Your task to perform on an android device: all mails in gmail Image 0: 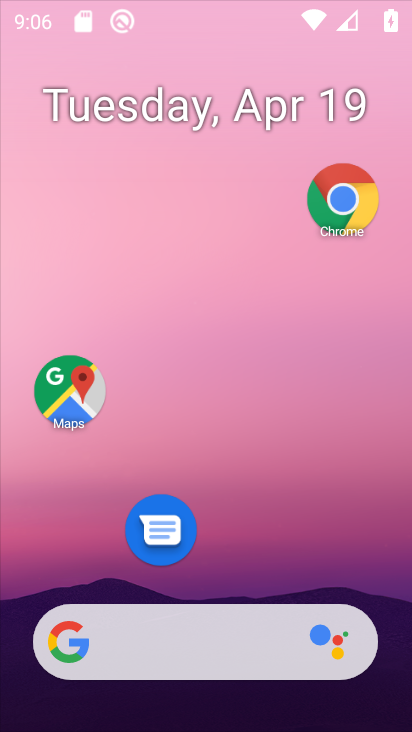
Step 0: drag from (213, 492) to (115, 1)
Your task to perform on an android device: all mails in gmail Image 1: 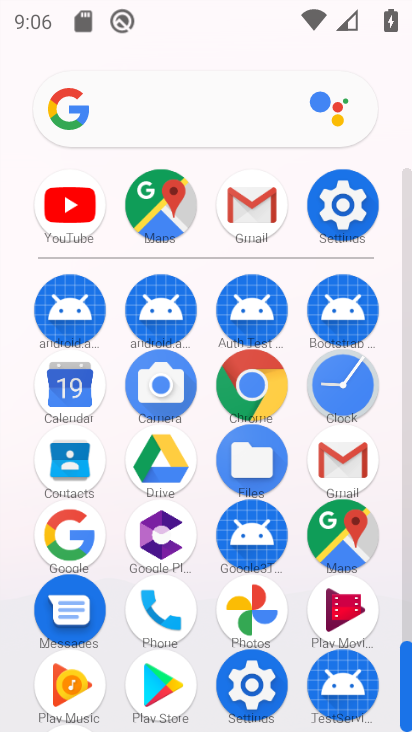
Step 1: click (337, 442)
Your task to perform on an android device: all mails in gmail Image 2: 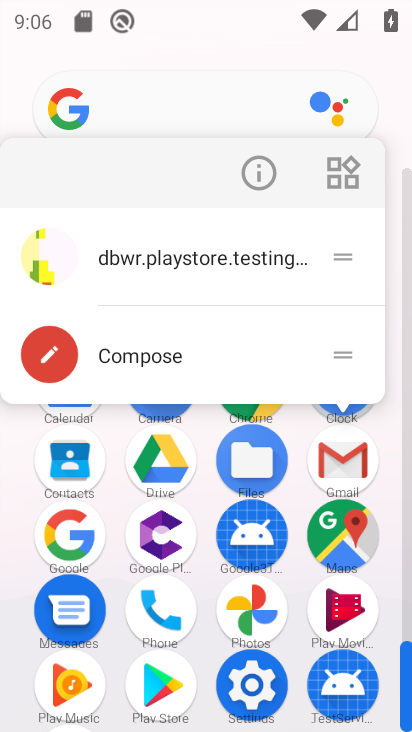
Step 2: click (261, 164)
Your task to perform on an android device: all mails in gmail Image 3: 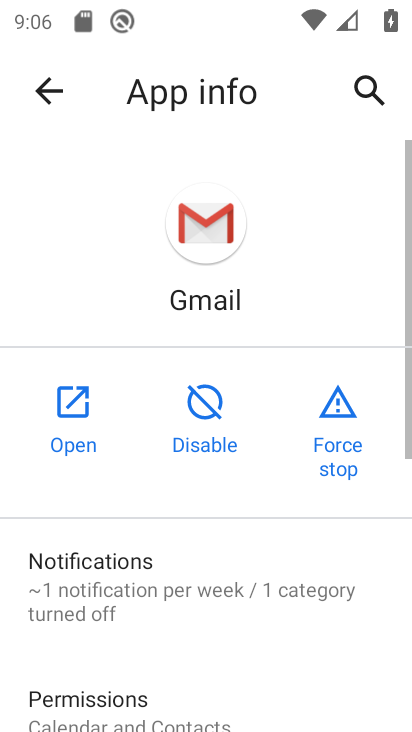
Step 3: click (52, 430)
Your task to perform on an android device: all mails in gmail Image 4: 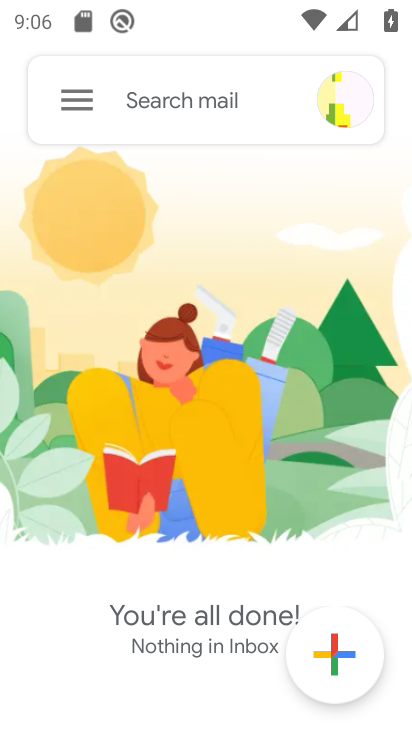
Step 4: drag from (216, 642) to (294, 291)
Your task to perform on an android device: all mails in gmail Image 5: 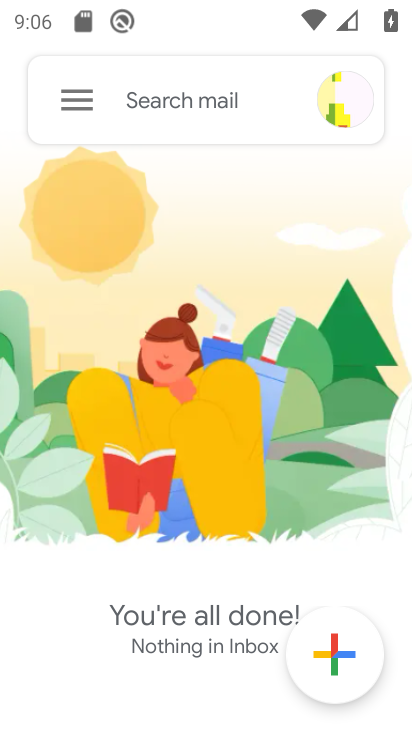
Step 5: click (57, 101)
Your task to perform on an android device: all mails in gmail Image 6: 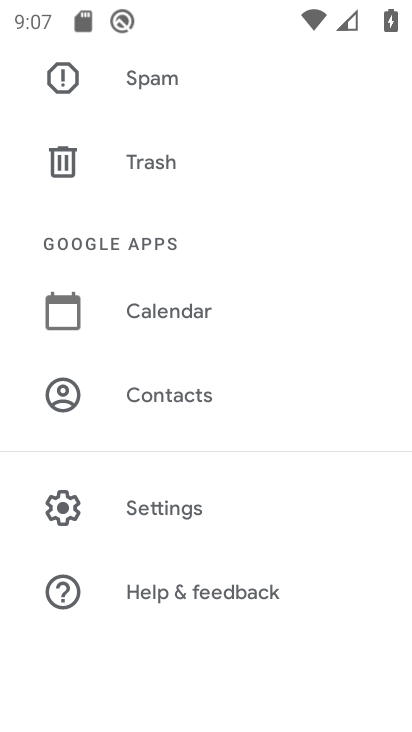
Step 6: click (223, 503)
Your task to perform on an android device: all mails in gmail Image 7: 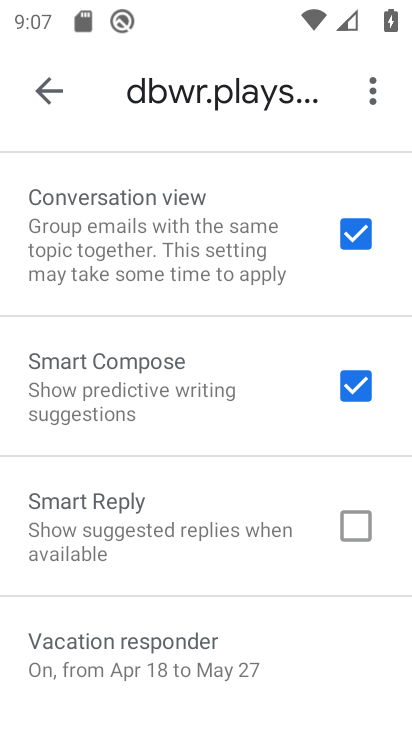
Step 7: drag from (221, 376) to (314, 714)
Your task to perform on an android device: all mails in gmail Image 8: 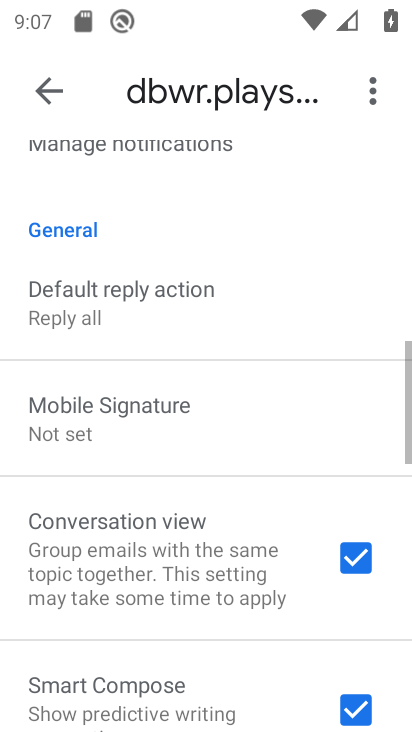
Step 8: drag from (198, 326) to (269, 730)
Your task to perform on an android device: all mails in gmail Image 9: 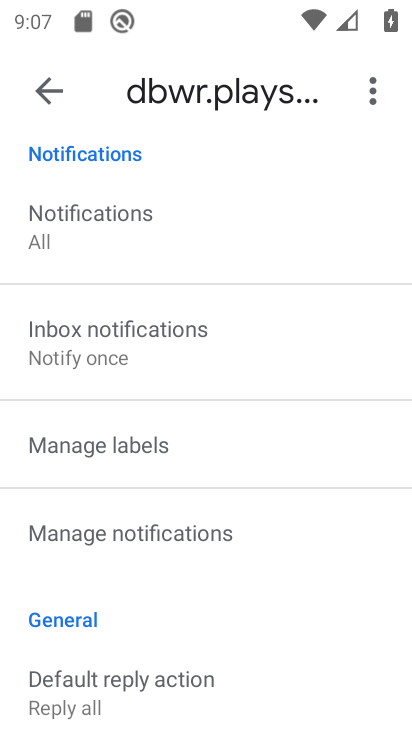
Step 9: drag from (133, 281) to (242, 670)
Your task to perform on an android device: all mails in gmail Image 10: 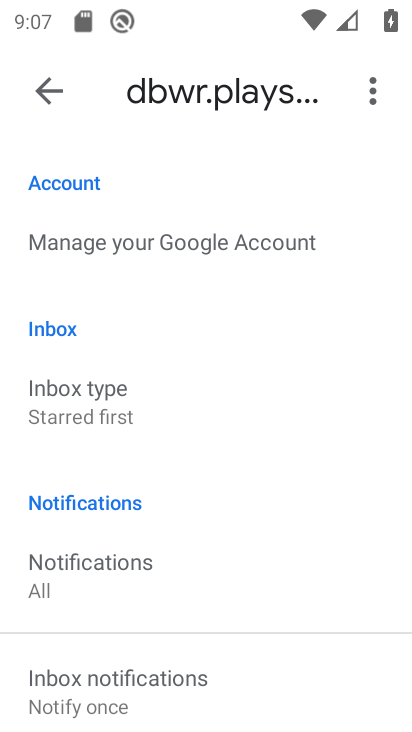
Step 10: drag from (180, 272) to (306, 529)
Your task to perform on an android device: all mails in gmail Image 11: 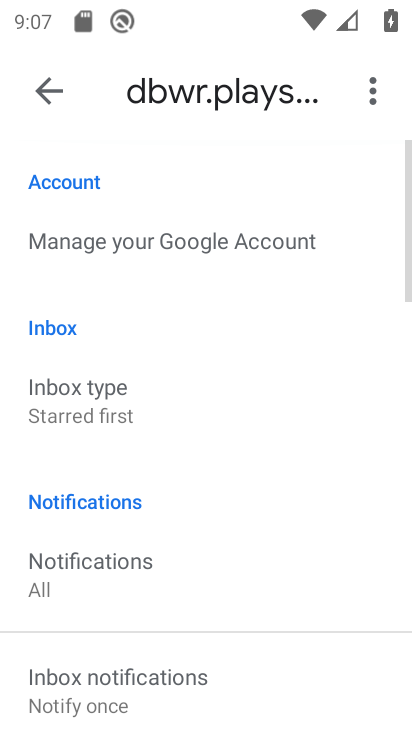
Step 11: click (45, 85)
Your task to perform on an android device: all mails in gmail Image 12: 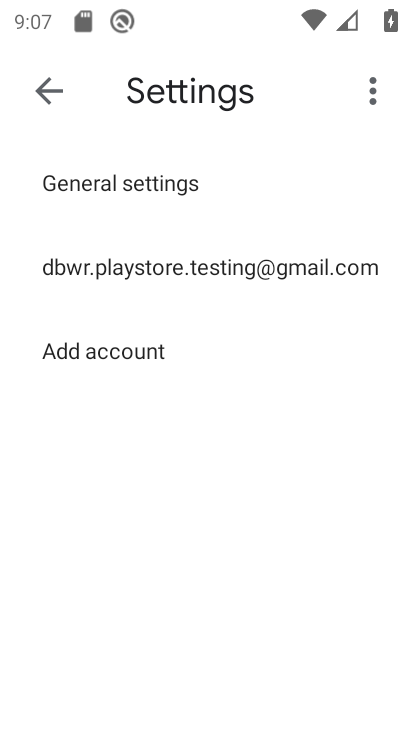
Step 12: click (53, 79)
Your task to perform on an android device: all mails in gmail Image 13: 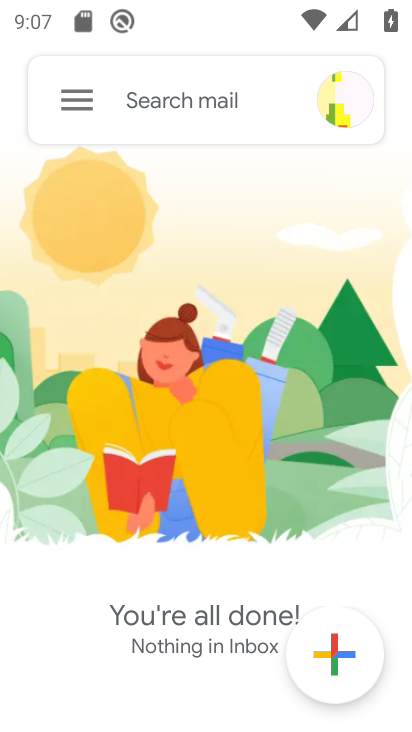
Step 13: click (75, 106)
Your task to perform on an android device: all mails in gmail Image 14: 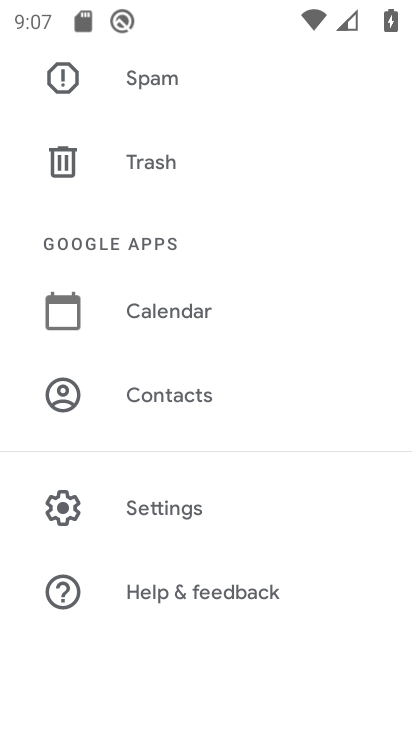
Step 14: drag from (171, 205) to (266, 690)
Your task to perform on an android device: all mails in gmail Image 15: 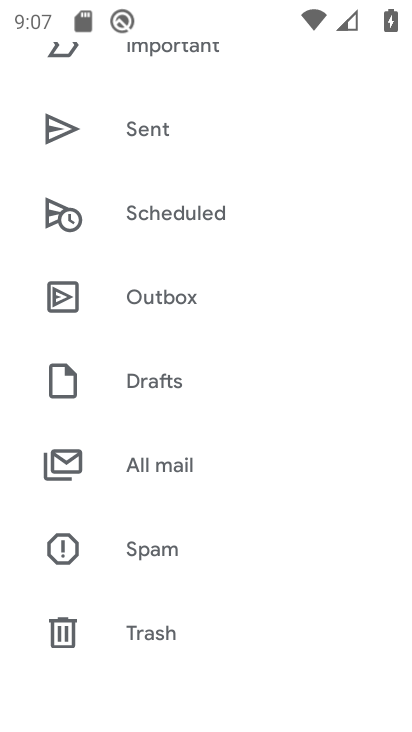
Step 15: drag from (198, 269) to (301, 606)
Your task to perform on an android device: all mails in gmail Image 16: 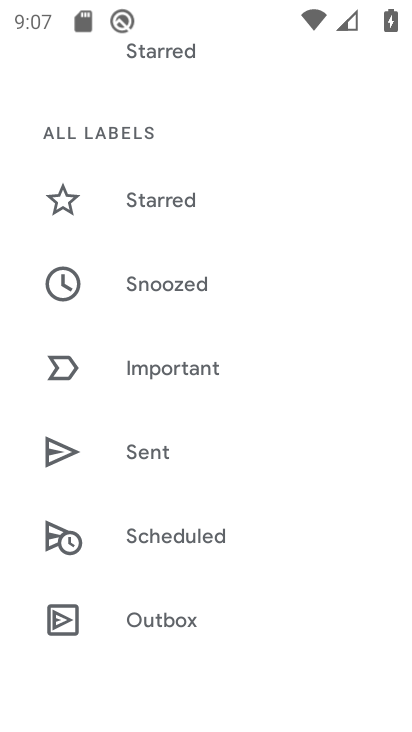
Step 16: drag from (242, 534) to (287, 107)
Your task to perform on an android device: all mails in gmail Image 17: 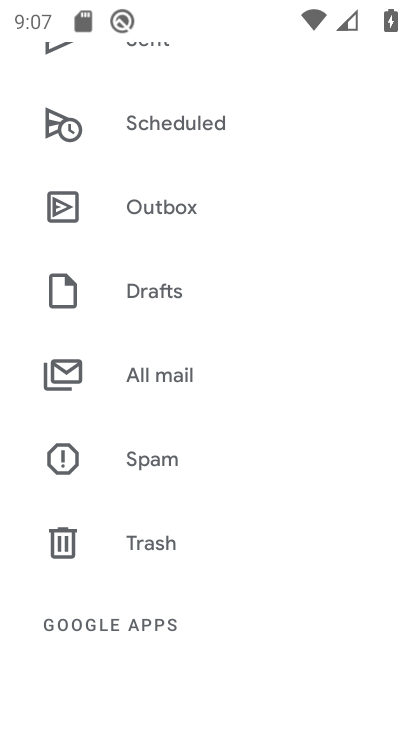
Step 17: click (165, 357)
Your task to perform on an android device: all mails in gmail Image 18: 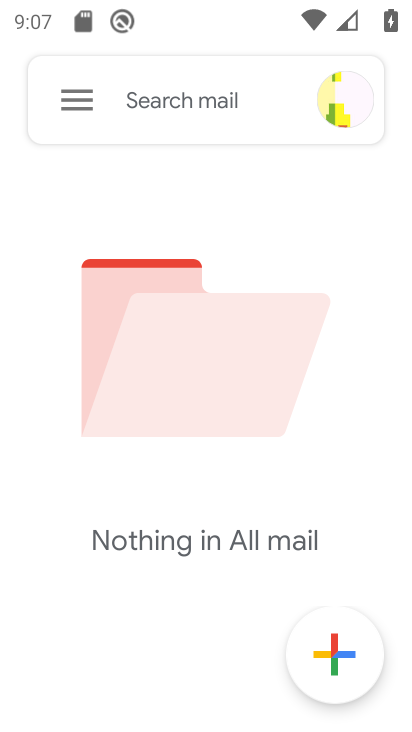
Step 18: drag from (219, 607) to (302, 130)
Your task to perform on an android device: all mails in gmail Image 19: 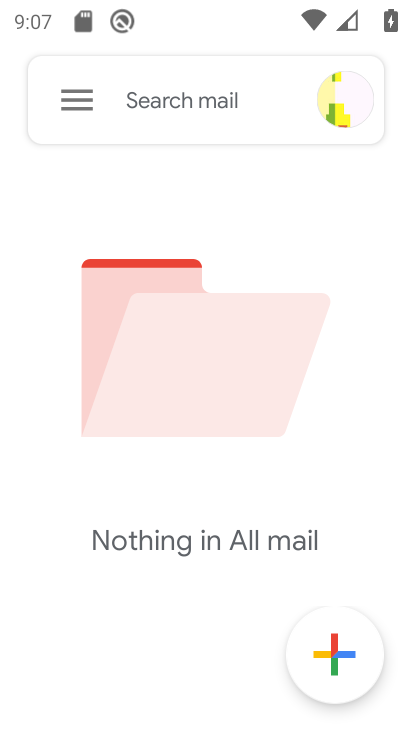
Step 19: click (65, 113)
Your task to perform on an android device: all mails in gmail Image 20: 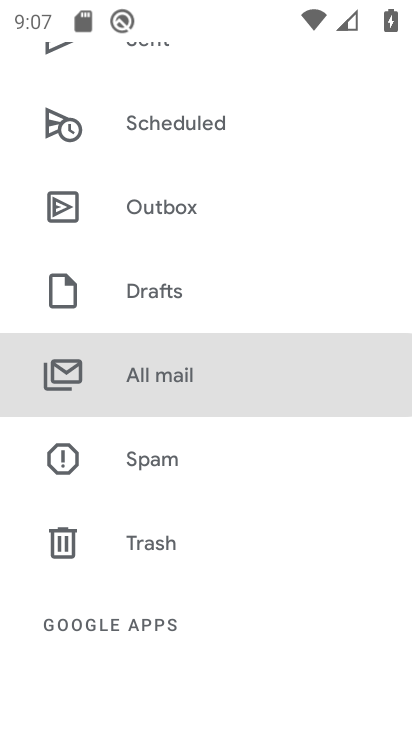
Step 20: click (154, 386)
Your task to perform on an android device: all mails in gmail Image 21: 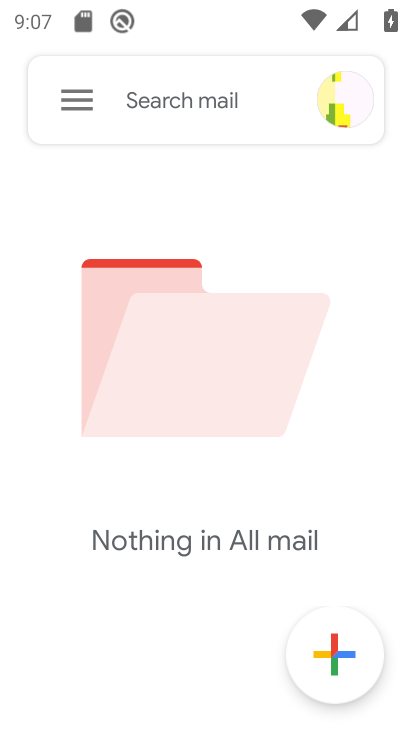
Step 21: drag from (183, 504) to (236, 306)
Your task to perform on an android device: all mails in gmail Image 22: 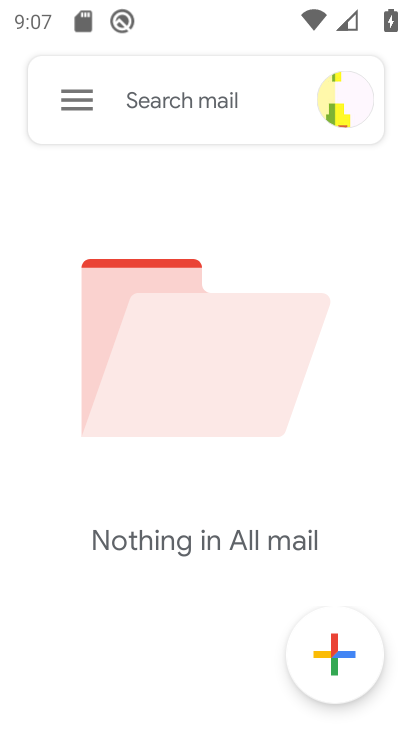
Step 22: click (88, 95)
Your task to perform on an android device: all mails in gmail Image 23: 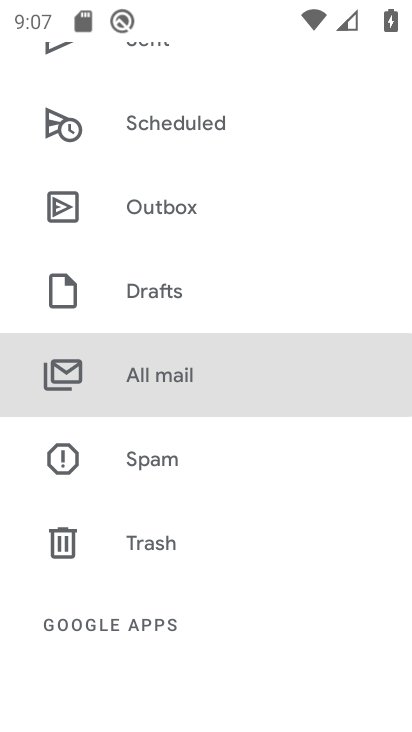
Step 23: click (203, 386)
Your task to perform on an android device: all mails in gmail Image 24: 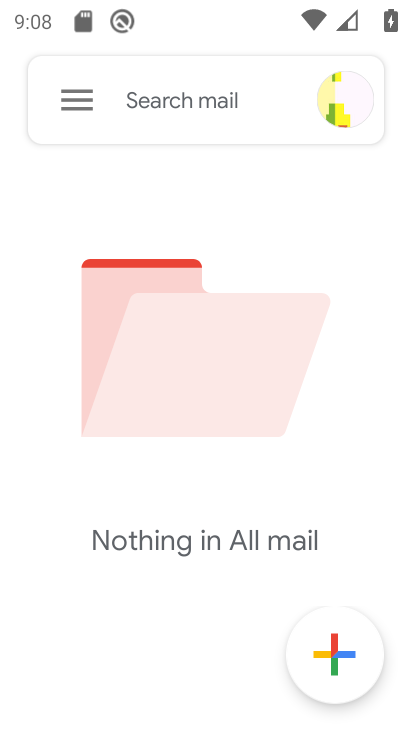
Step 24: drag from (185, 514) to (203, 119)
Your task to perform on an android device: all mails in gmail Image 25: 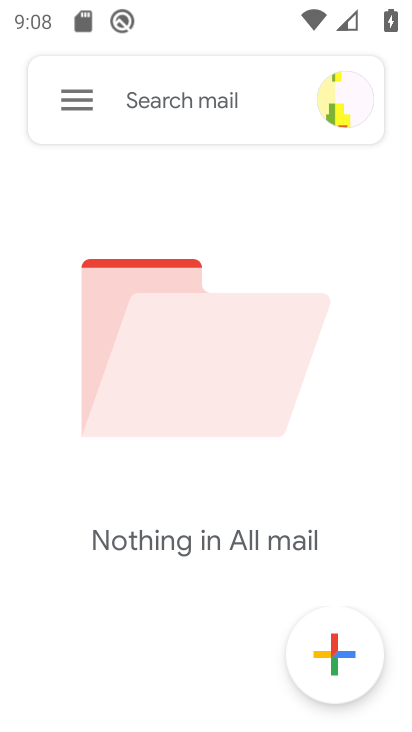
Step 25: drag from (144, 562) to (310, 545)
Your task to perform on an android device: all mails in gmail Image 26: 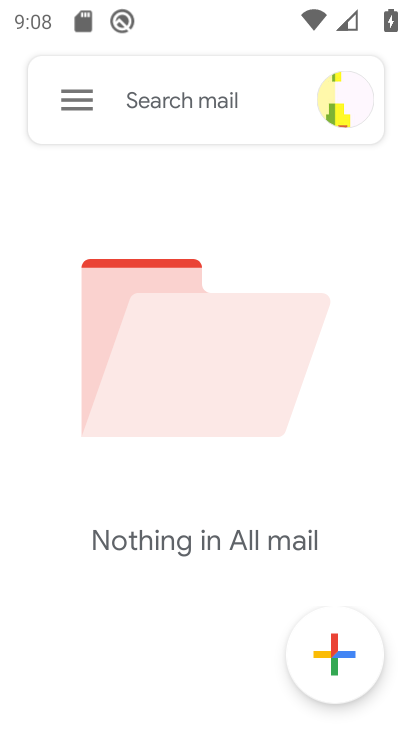
Step 26: drag from (258, 461) to (78, 567)
Your task to perform on an android device: all mails in gmail Image 27: 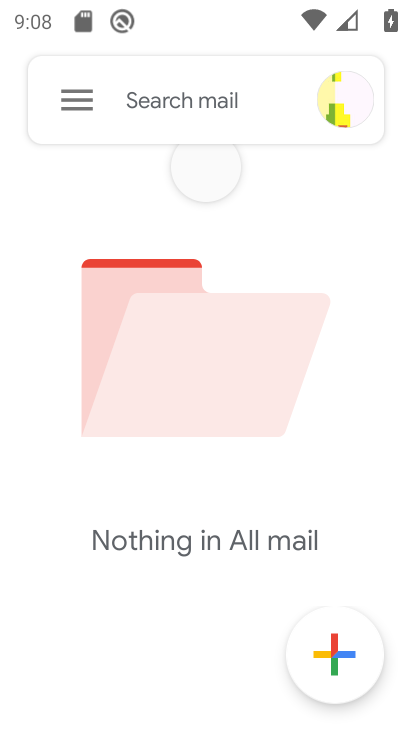
Step 27: drag from (86, 531) to (315, 461)
Your task to perform on an android device: all mails in gmail Image 28: 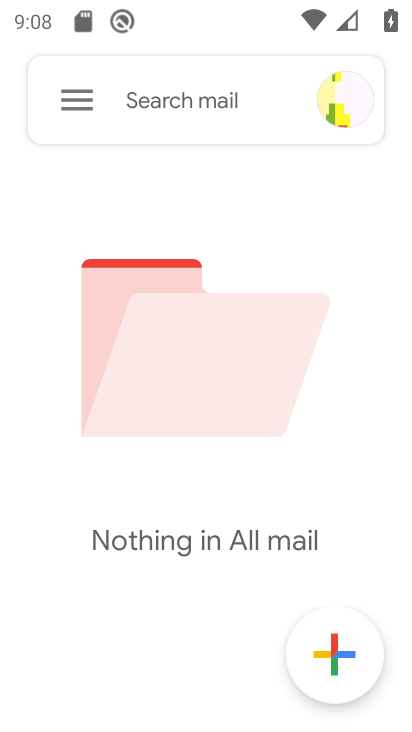
Step 28: drag from (315, 515) to (89, 582)
Your task to perform on an android device: all mails in gmail Image 29: 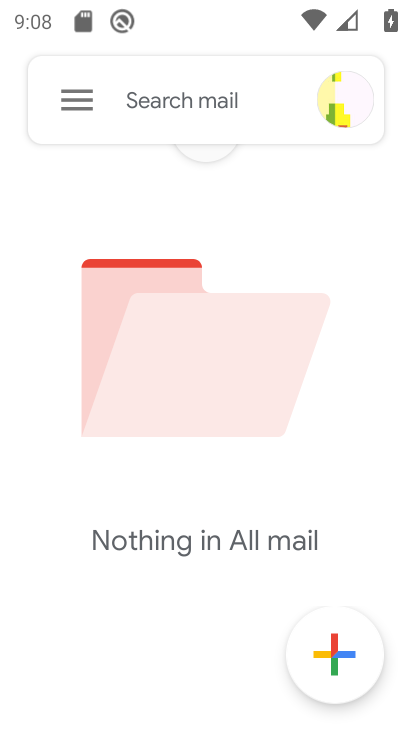
Step 29: drag from (163, 523) to (214, 259)
Your task to perform on an android device: all mails in gmail Image 30: 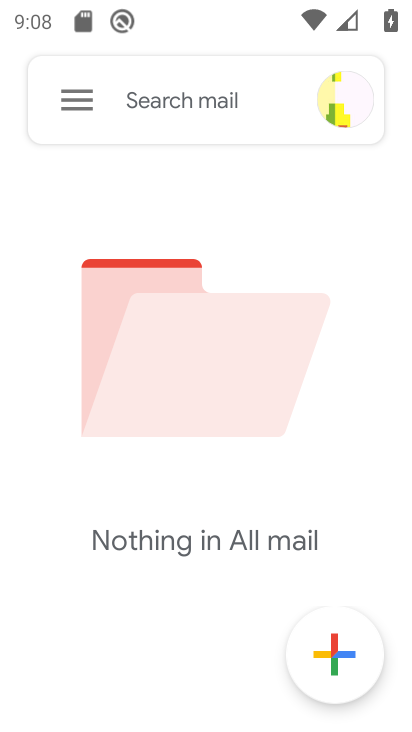
Step 30: drag from (309, 515) to (94, 562)
Your task to perform on an android device: all mails in gmail Image 31: 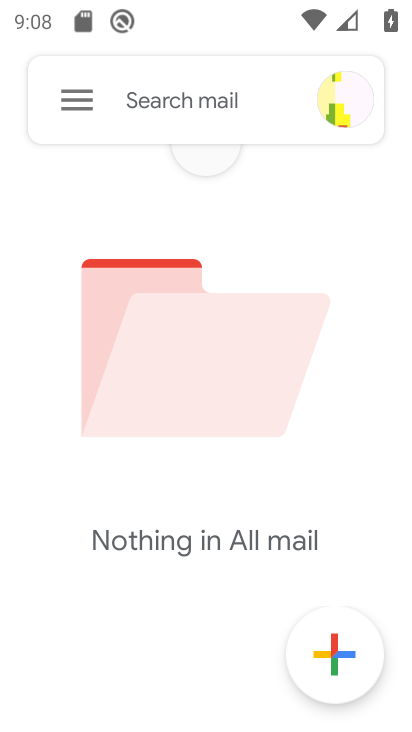
Step 31: drag from (78, 518) to (261, 340)
Your task to perform on an android device: all mails in gmail Image 32: 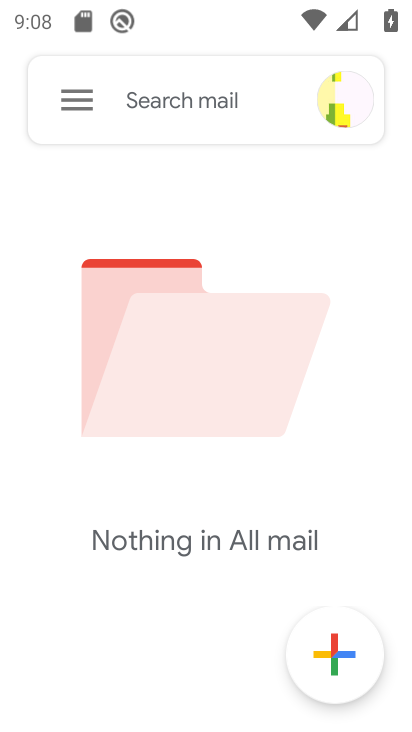
Step 32: drag from (300, 516) to (259, 378)
Your task to perform on an android device: all mails in gmail Image 33: 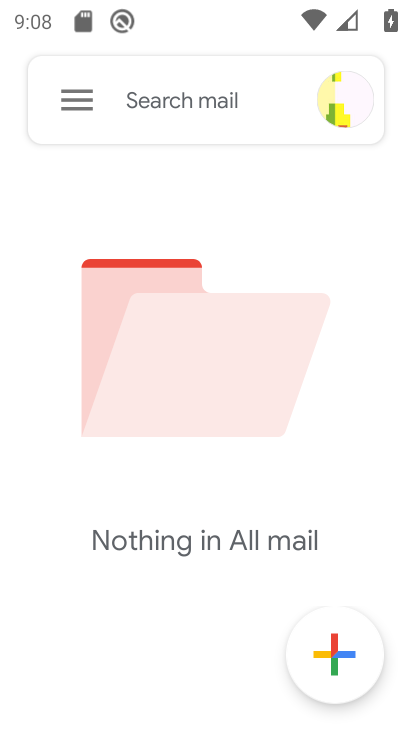
Step 33: click (180, 307)
Your task to perform on an android device: all mails in gmail Image 34: 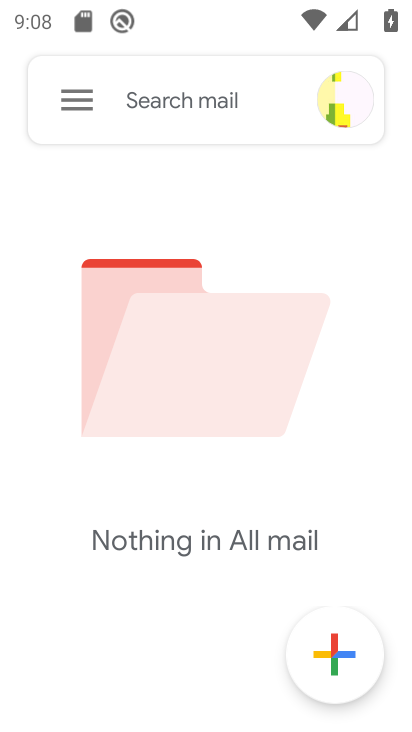
Step 34: drag from (325, 520) to (249, 344)
Your task to perform on an android device: all mails in gmail Image 35: 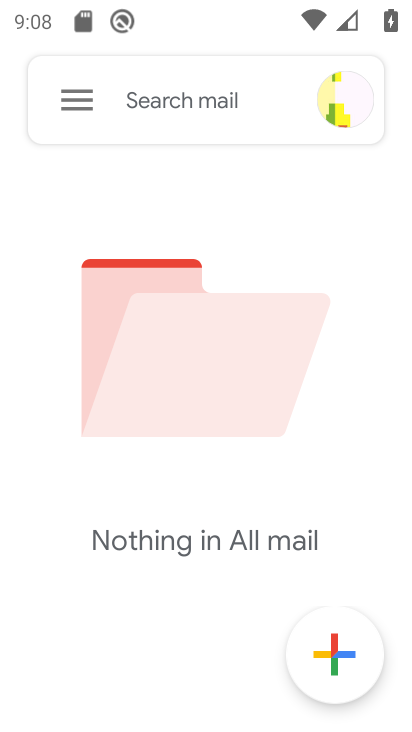
Step 35: click (68, 94)
Your task to perform on an android device: all mails in gmail Image 36: 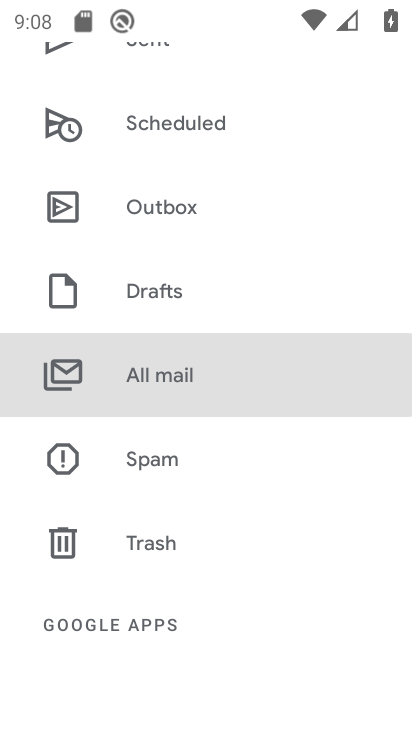
Step 36: click (183, 380)
Your task to perform on an android device: all mails in gmail Image 37: 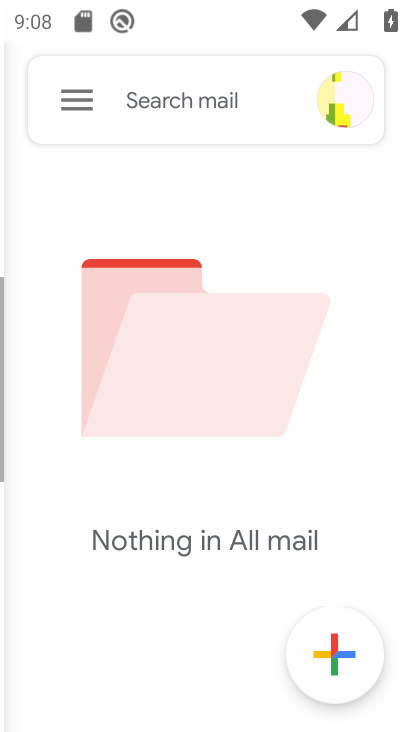
Step 37: task complete